Your task to perform on an android device: Open Chrome and go to settings Image 0: 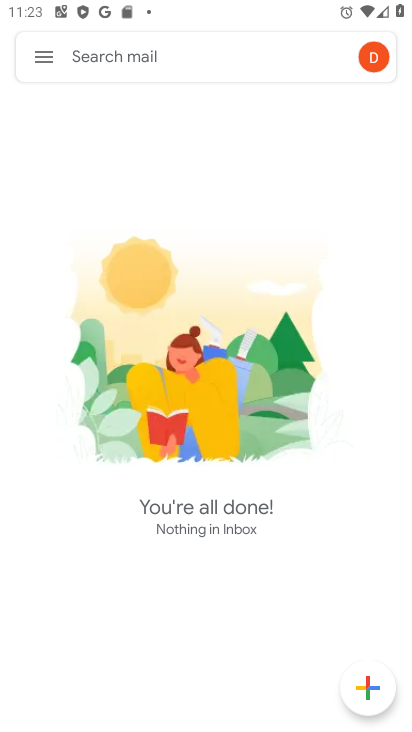
Step 0: press home button
Your task to perform on an android device: Open Chrome and go to settings Image 1: 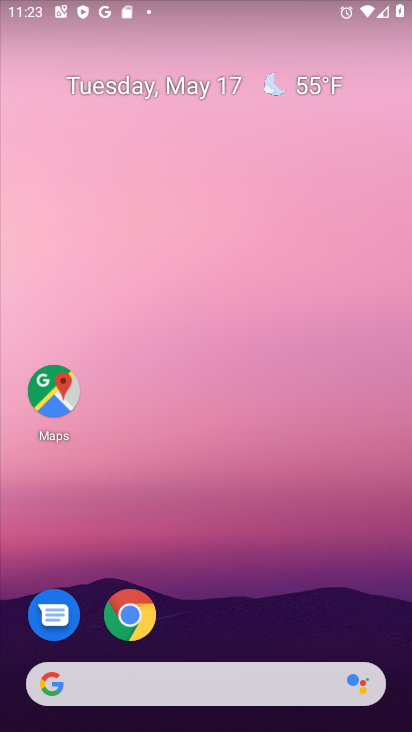
Step 1: drag from (345, 595) to (341, 235)
Your task to perform on an android device: Open Chrome and go to settings Image 2: 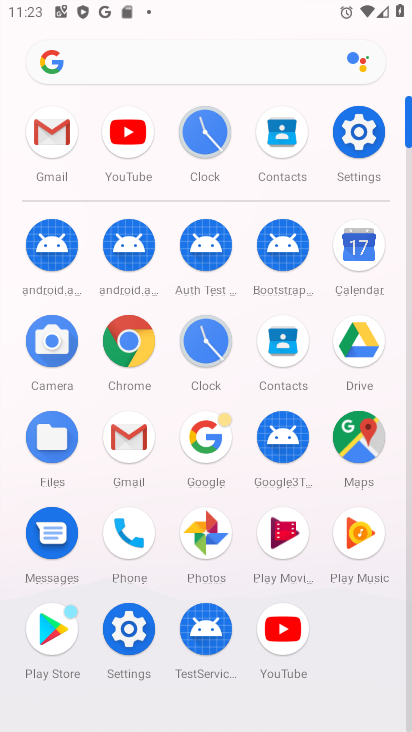
Step 2: click (138, 349)
Your task to perform on an android device: Open Chrome and go to settings Image 3: 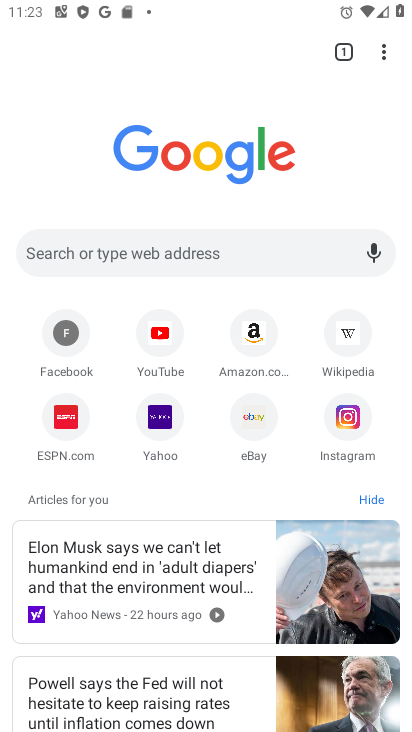
Step 3: task complete